Your task to perform on an android device: Search for Italian restaurants on Maps Image 0: 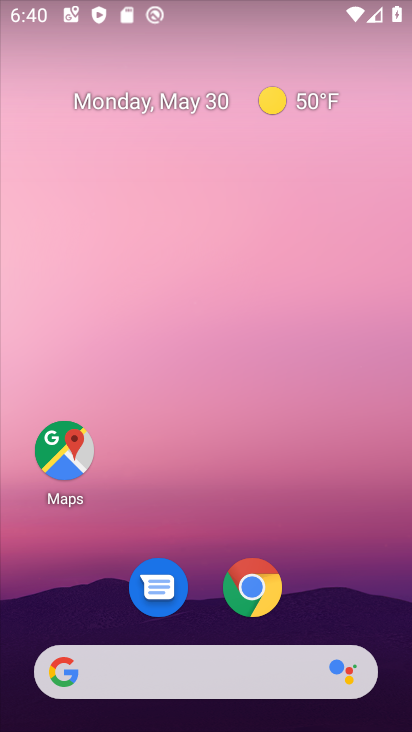
Step 0: drag from (320, 543) to (211, 22)
Your task to perform on an android device: Search for Italian restaurants on Maps Image 1: 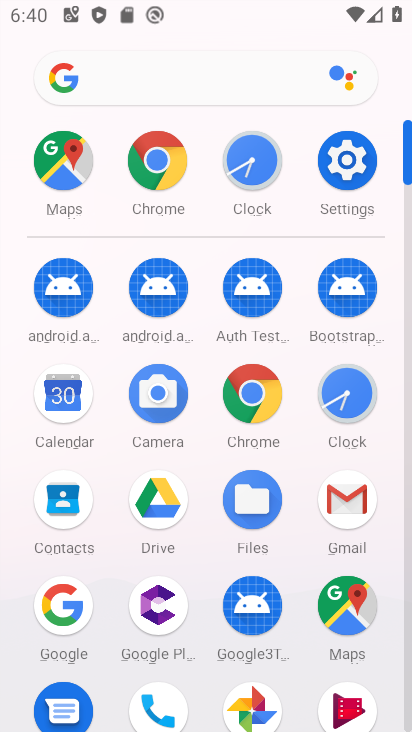
Step 1: drag from (23, 576) to (17, 204)
Your task to perform on an android device: Search for Italian restaurants on Maps Image 2: 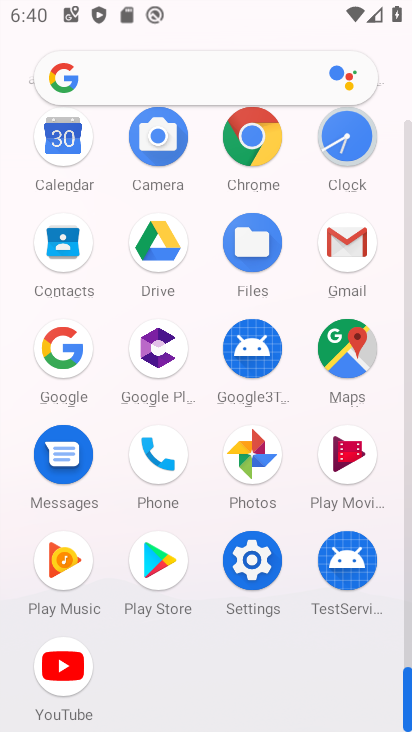
Step 2: click (345, 343)
Your task to perform on an android device: Search for Italian restaurants on Maps Image 3: 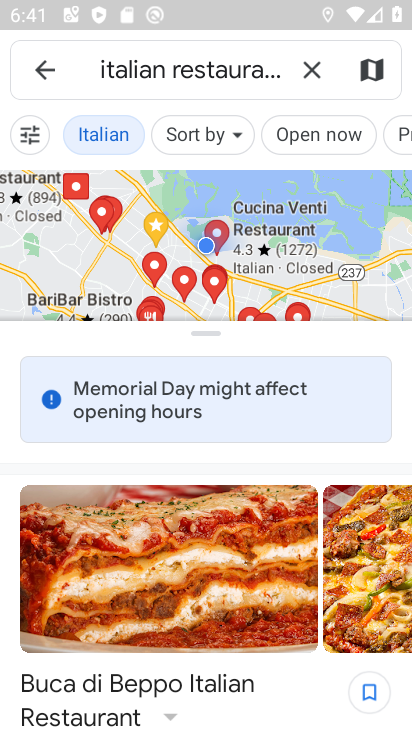
Step 3: task complete